Your task to perform on an android device: toggle wifi Image 0: 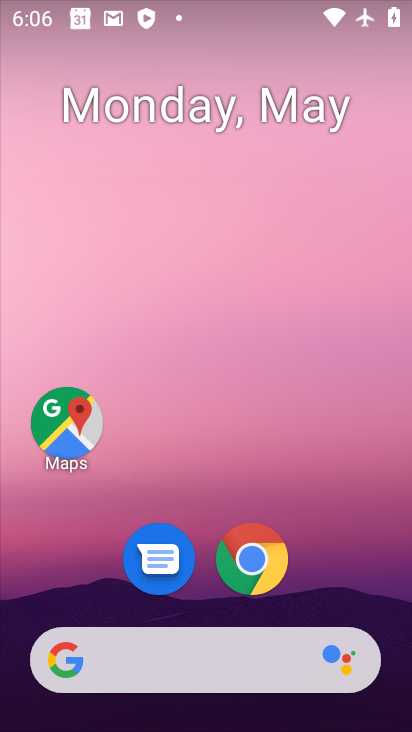
Step 0: drag from (327, 539) to (219, 193)
Your task to perform on an android device: toggle wifi Image 1: 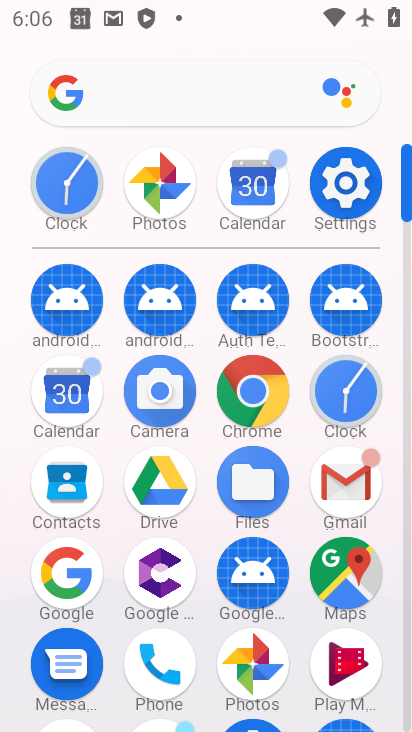
Step 1: click (351, 180)
Your task to perform on an android device: toggle wifi Image 2: 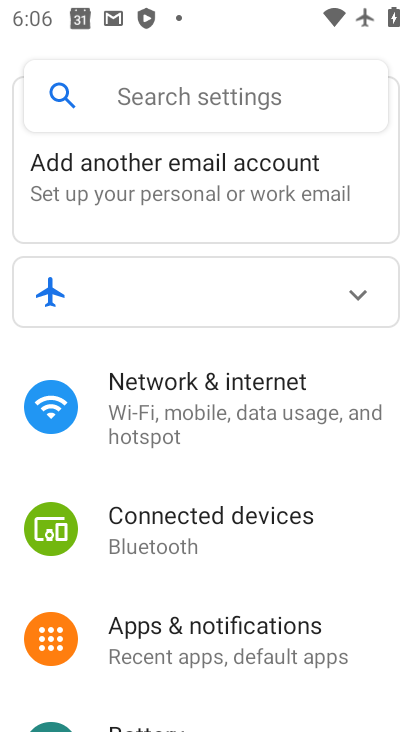
Step 2: click (217, 399)
Your task to perform on an android device: toggle wifi Image 3: 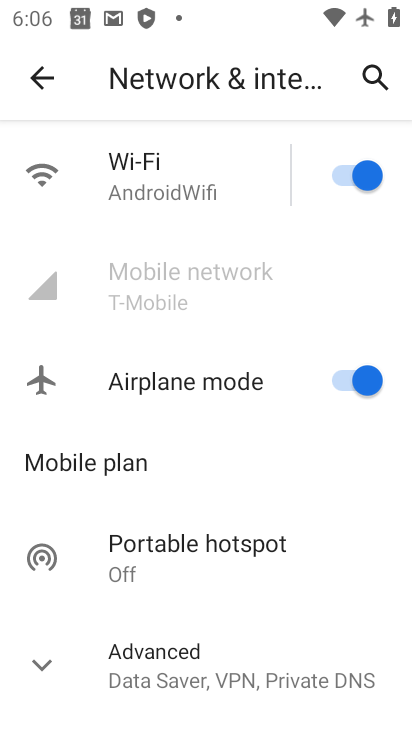
Step 3: click (353, 168)
Your task to perform on an android device: toggle wifi Image 4: 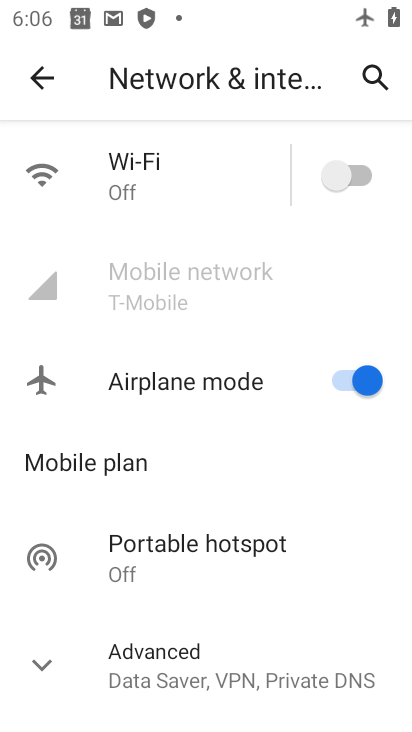
Step 4: task complete